Your task to perform on an android device: Open network settings Image 0: 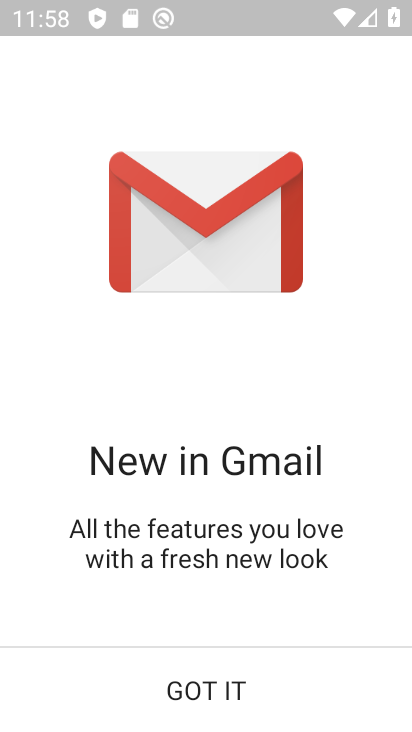
Step 0: click (185, 687)
Your task to perform on an android device: Open network settings Image 1: 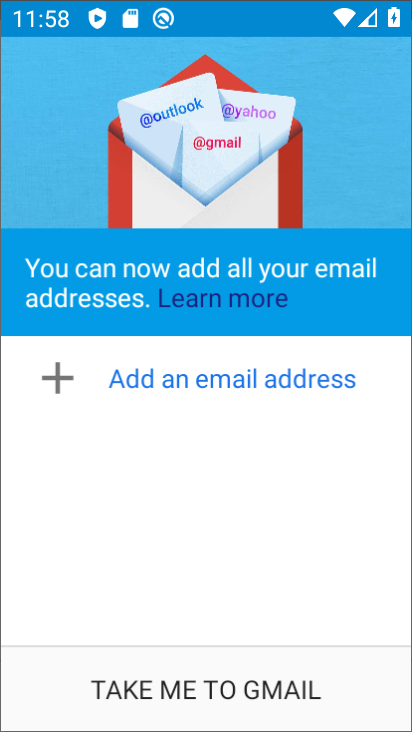
Step 1: press back button
Your task to perform on an android device: Open network settings Image 2: 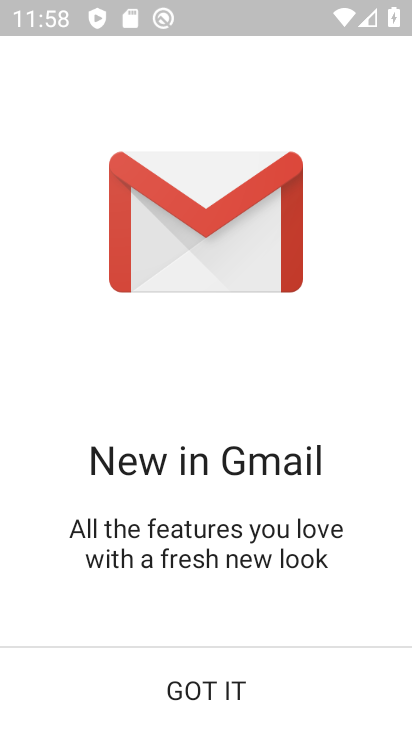
Step 2: press back button
Your task to perform on an android device: Open network settings Image 3: 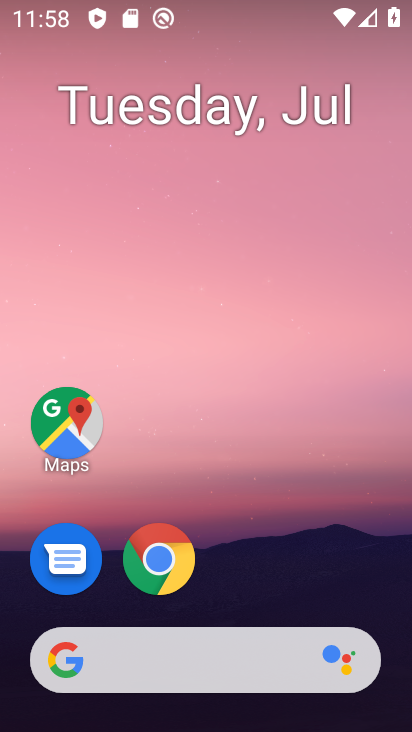
Step 3: drag from (244, 601) to (294, 4)
Your task to perform on an android device: Open network settings Image 4: 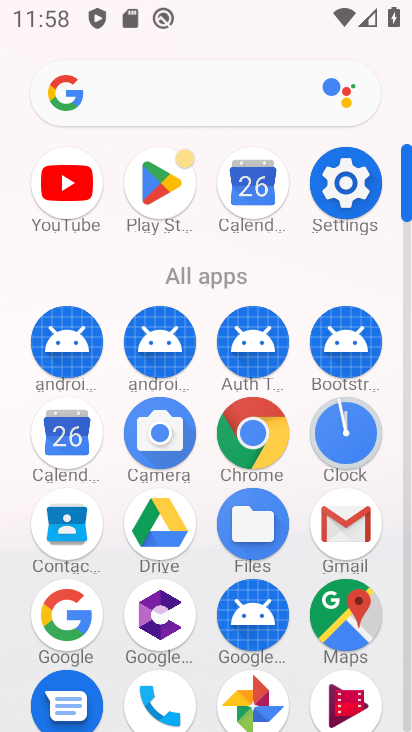
Step 4: click (346, 186)
Your task to perform on an android device: Open network settings Image 5: 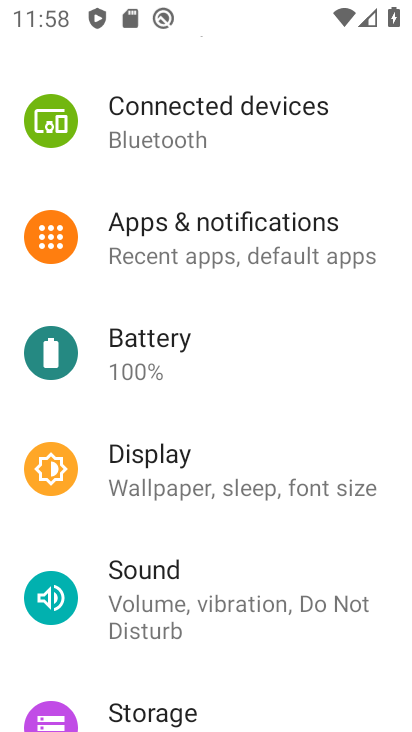
Step 5: drag from (304, 258) to (229, 712)
Your task to perform on an android device: Open network settings Image 6: 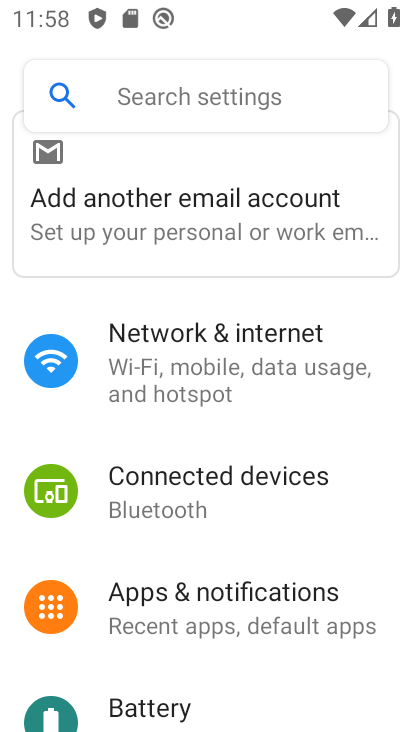
Step 6: click (189, 375)
Your task to perform on an android device: Open network settings Image 7: 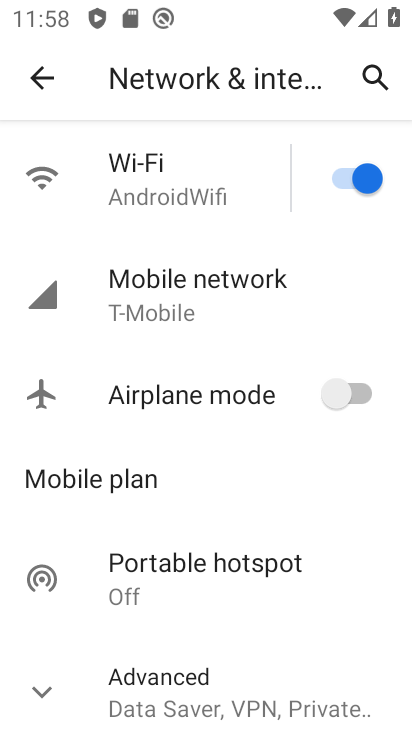
Step 7: task complete